Your task to perform on an android device: Turn on the flashlight Image 0: 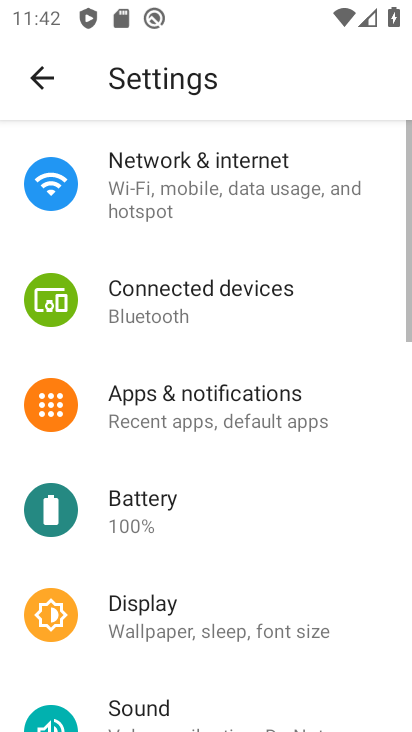
Step 0: drag from (179, 605) to (240, 134)
Your task to perform on an android device: Turn on the flashlight Image 1: 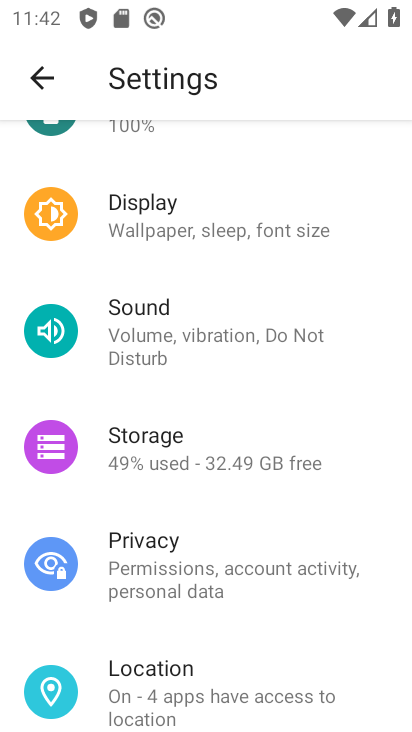
Step 1: task complete